Your task to perform on an android device: Open Reddit.com Image 0: 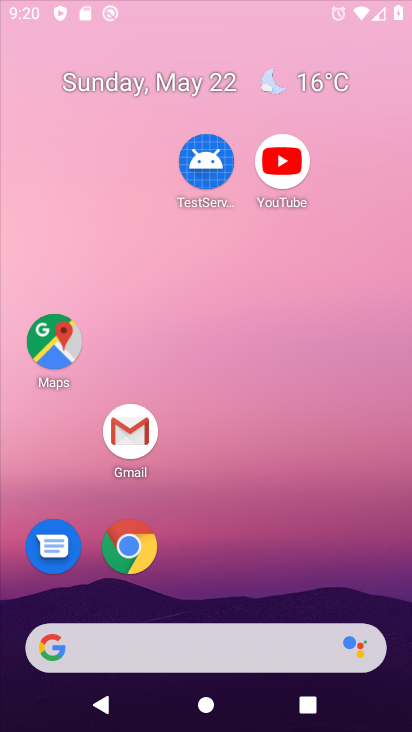
Step 0: drag from (275, 725) to (144, 41)
Your task to perform on an android device: Open Reddit.com Image 1: 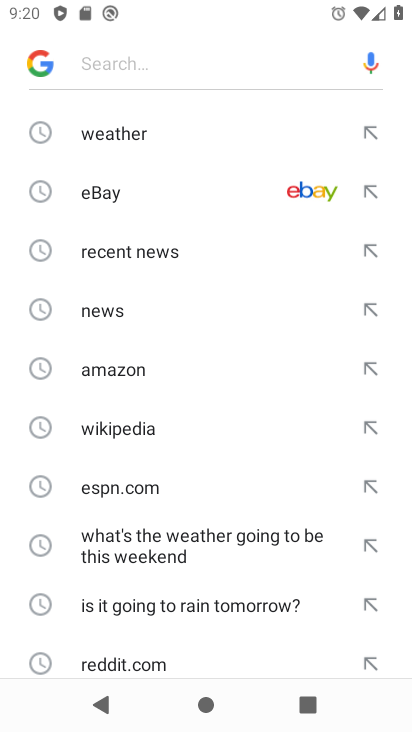
Step 1: press back button
Your task to perform on an android device: Open Reddit.com Image 2: 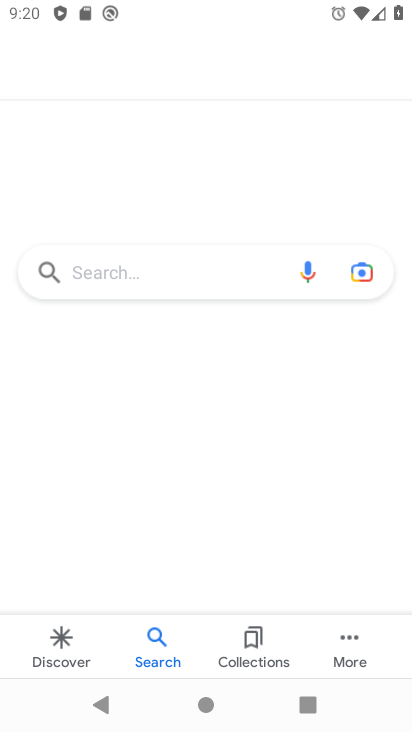
Step 2: press home button
Your task to perform on an android device: Open Reddit.com Image 3: 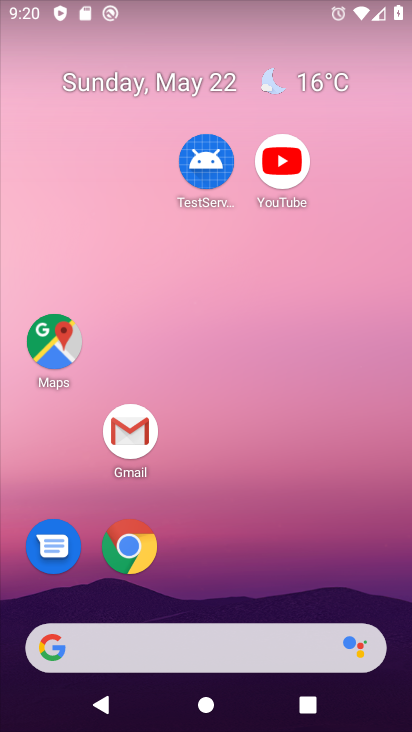
Step 3: click (254, 88)
Your task to perform on an android device: Open Reddit.com Image 4: 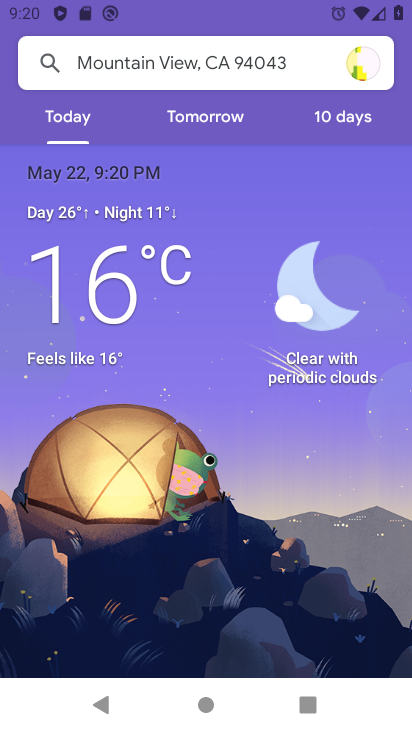
Step 4: press home button
Your task to perform on an android device: Open Reddit.com Image 5: 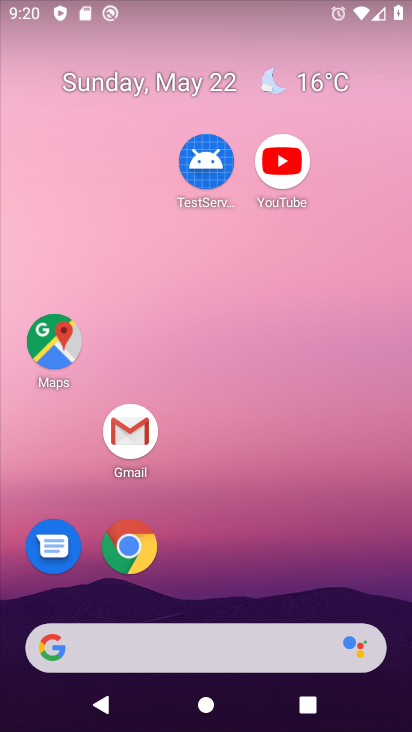
Step 5: drag from (259, 695) to (181, 118)
Your task to perform on an android device: Open Reddit.com Image 6: 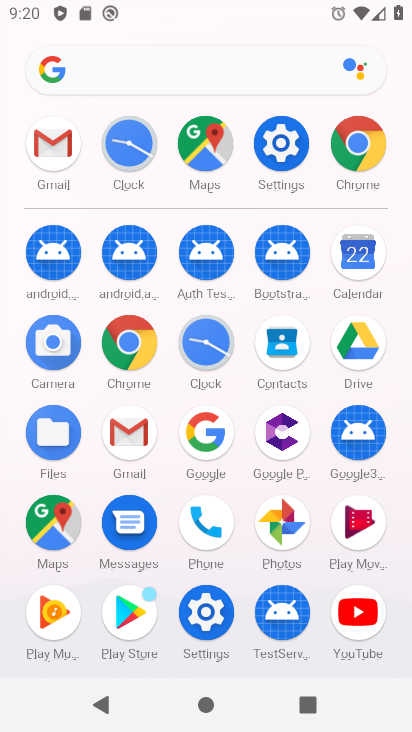
Step 6: click (361, 142)
Your task to perform on an android device: Open Reddit.com Image 7: 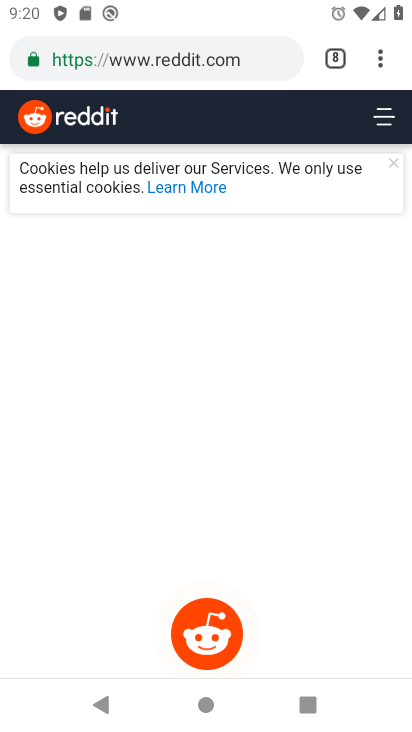
Step 7: click (381, 76)
Your task to perform on an android device: Open Reddit.com Image 8: 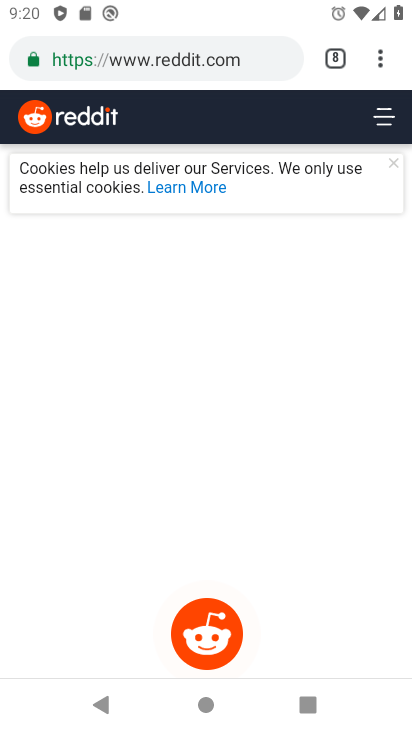
Step 8: click (378, 50)
Your task to perform on an android device: Open Reddit.com Image 9: 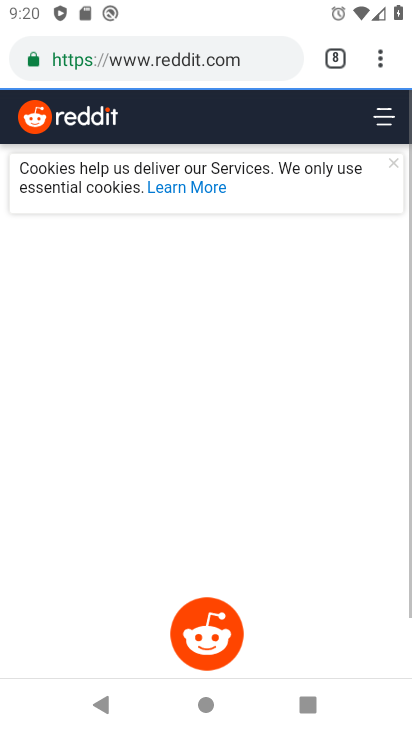
Step 9: click (380, 48)
Your task to perform on an android device: Open Reddit.com Image 10: 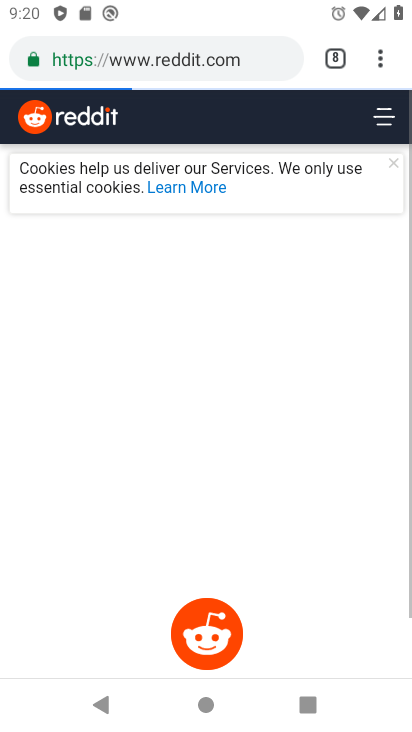
Step 10: click (373, 59)
Your task to perform on an android device: Open Reddit.com Image 11: 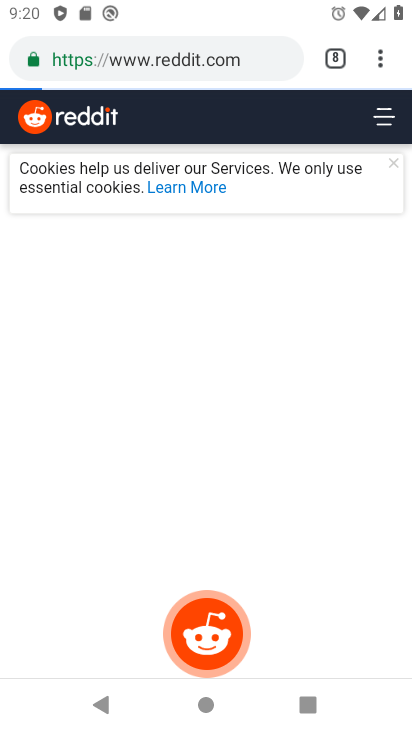
Step 11: click (373, 59)
Your task to perform on an android device: Open Reddit.com Image 12: 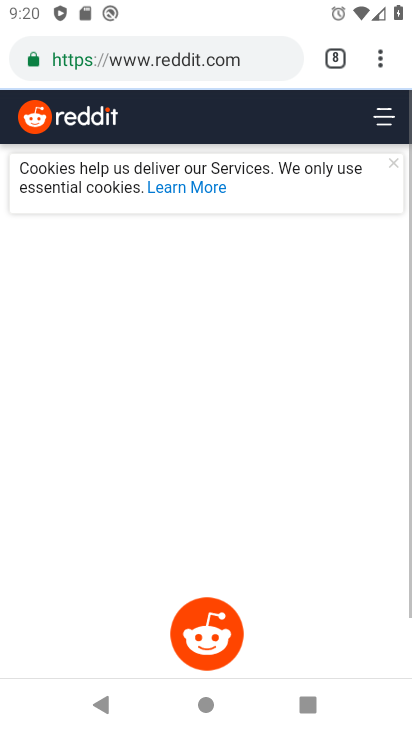
Step 12: click (86, 341)
Your task to perform on an android device: Open Reddit.com Image 13: 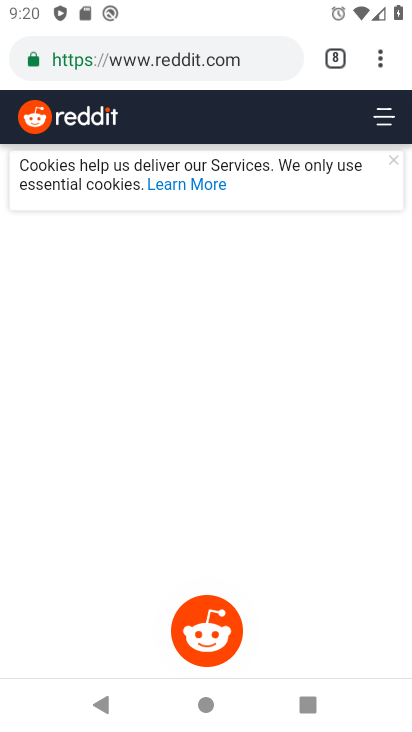
Step 13: task complete